Your task to perform on an android device: turn off sleep mode Image 0: 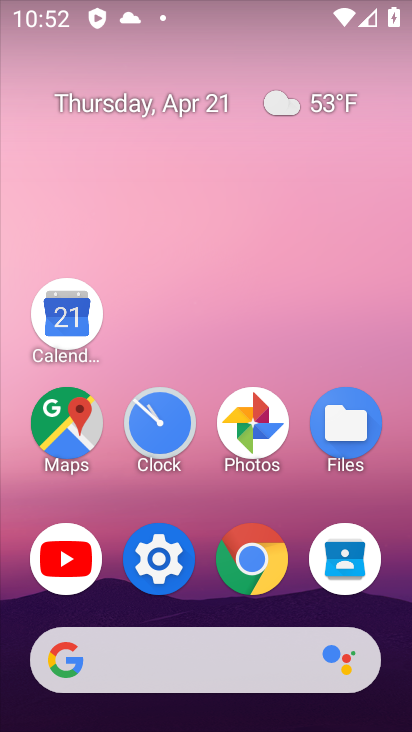
Step 0: click (160, 559)
Your task to perform on an android device: turn off sleep mode Image 1: 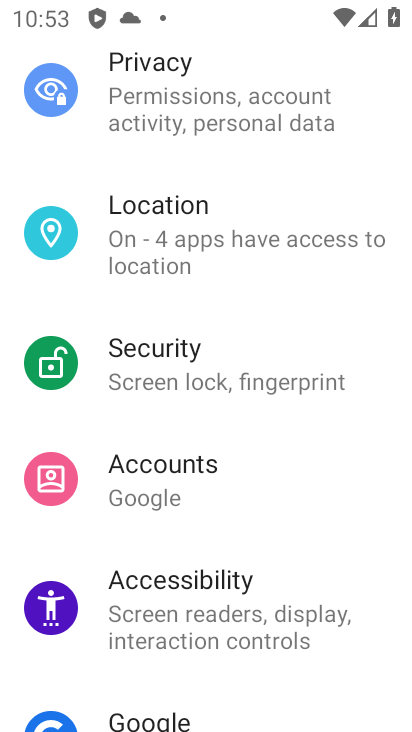
Step 1: drag from (282, 159) to (260, 583)
Your task to perform on an android device: turn off sleep mode Image 2: 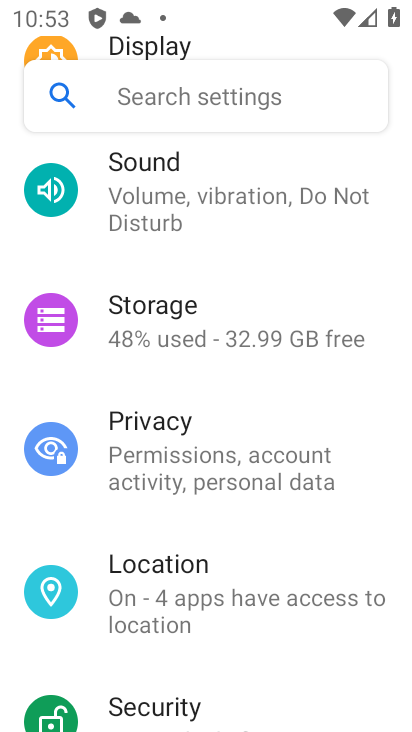
Step 2: drag from (245, 282) to (201, 728)
Your task to perform on an android device: turn off sleep mode Image 3: 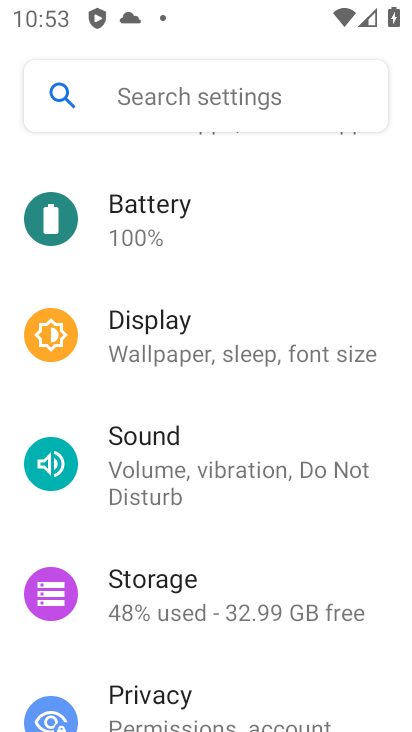
Step 3: click (149, 318)
Your task to perform on an android device: turn off sleep mode Image 4: 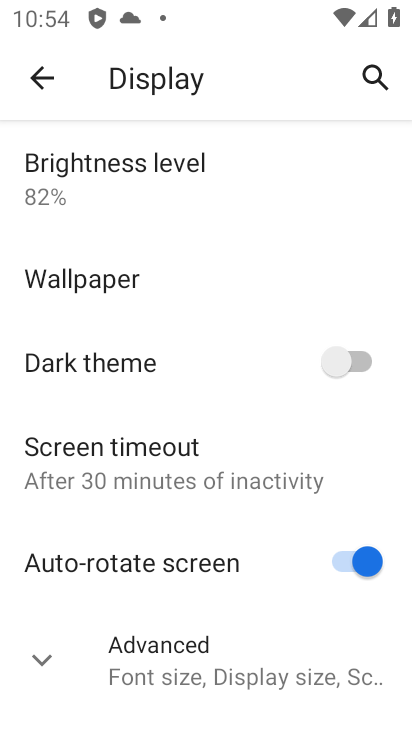
Step 4: task complete